Your task to perform on an android device: turn smart compose on in the gmail app Image 0: 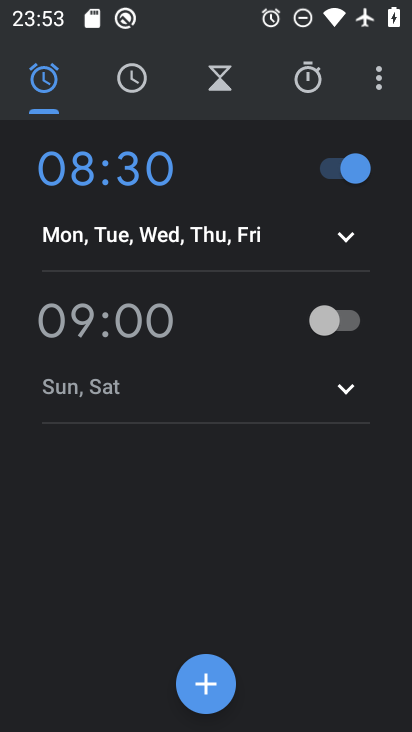
Step 0: press home button
Your task to perform on an android device: turn smart compose on in the gmail app Image 1: 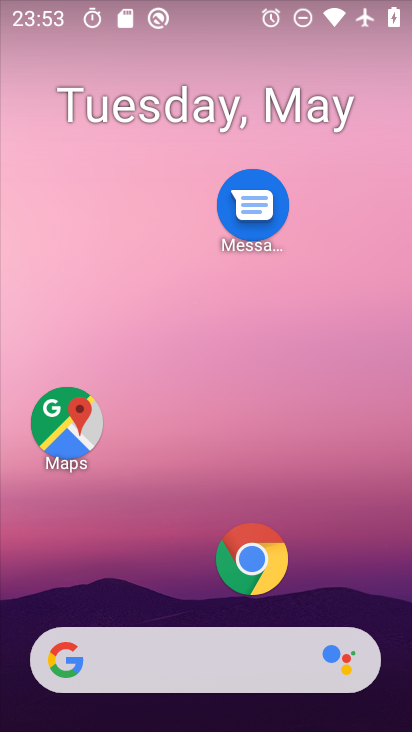
Step 1: drag from (168, 582) to (222, 142)
Your task to perform on an android device: turn smart compose on in the gmail app Image 2: 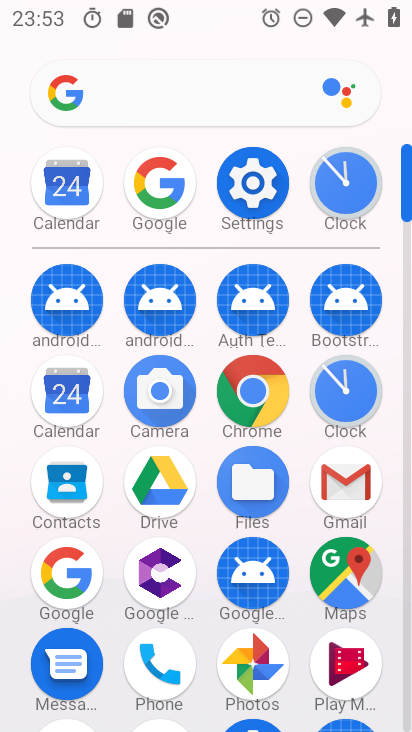
Step 2: click (330, 480)
Your task to perform on an android device: turn smart compose on in the gmail app Image 3: 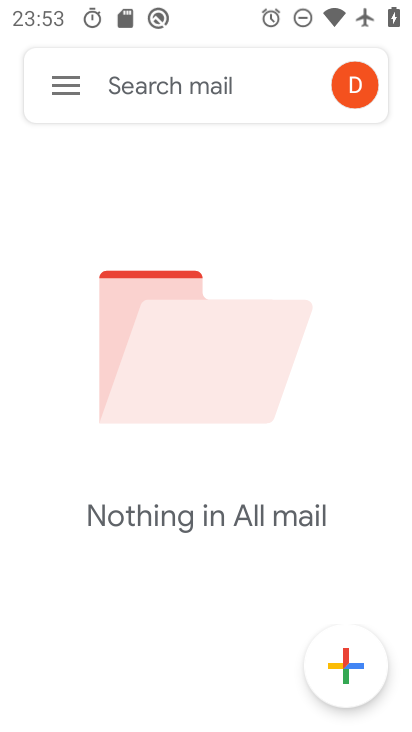
Step 3: click (62, 100)
Your task to perform on an android device: turn smart compose on in the gmail app Image 4: 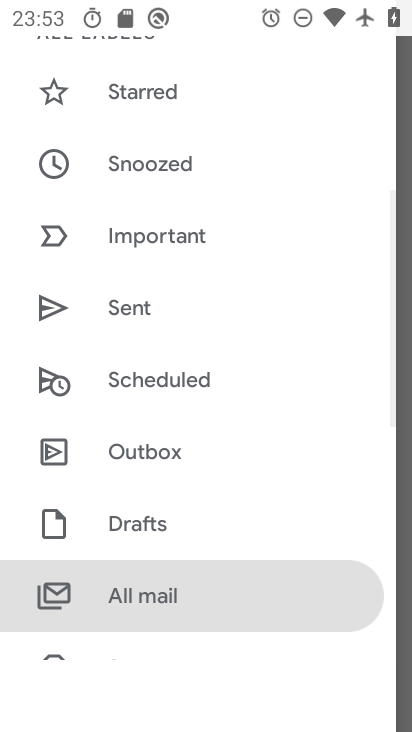
Step 4: drag from (193, 639) to (270, 270)
Your task to perform on an android device: turn smart compose on in the gmail app Image 5: 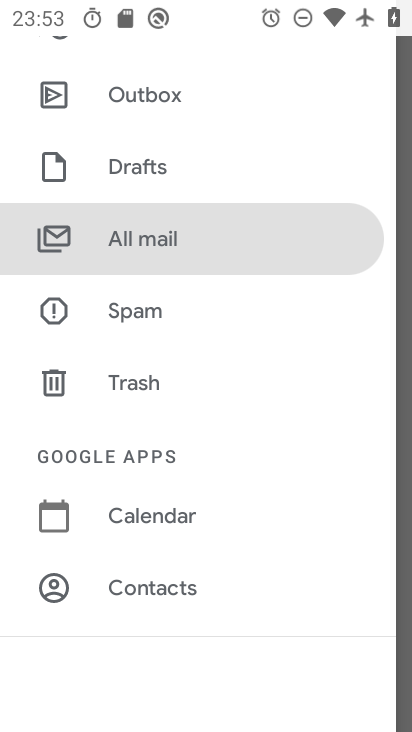
Step 5: drag from (222, 594) to (254, 301)
Your task to perform on an android device: turn smart compose on in the gmail app Image 6: 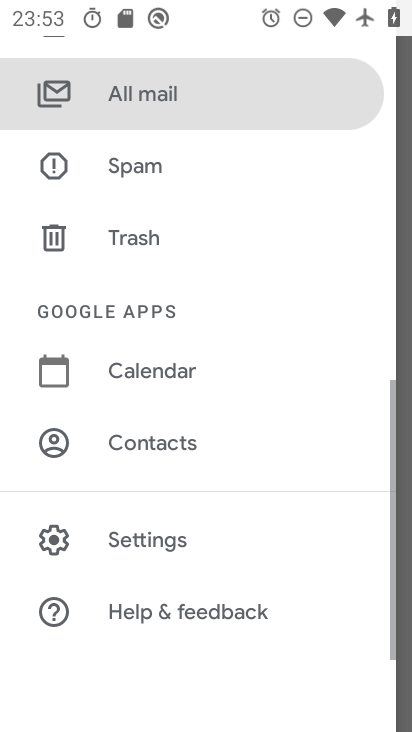
Step 6: click (202, 545)
Your task to perform on an android device: turn smart compose on in the gmail app Image 7: 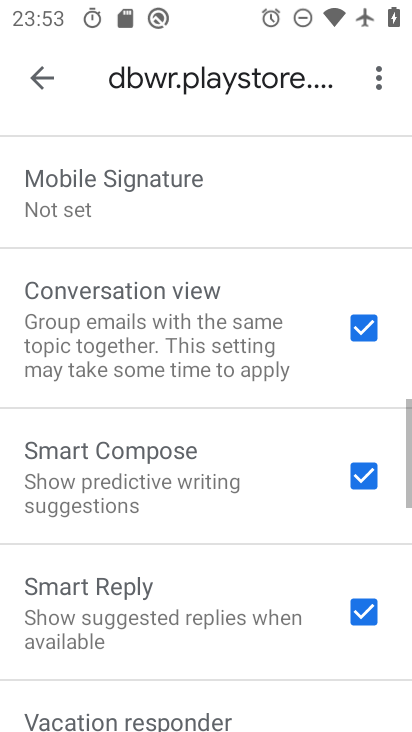
Step 7: task complete